Your task to perform on an android device: Open location settings Image 0: 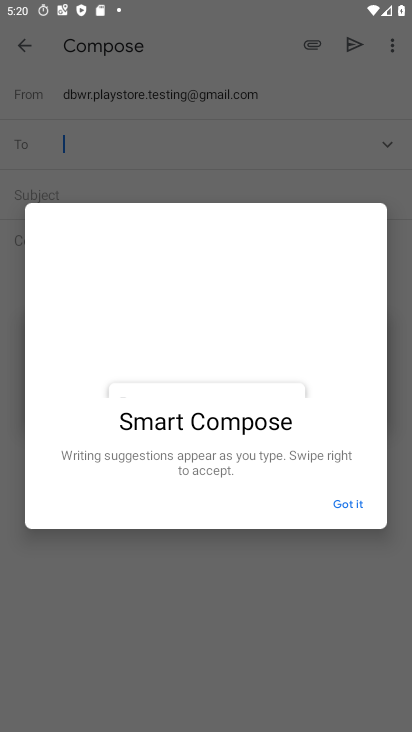
Step 0: click (354, 505)
Your task to perform on an android device: Open location settings Image 1: 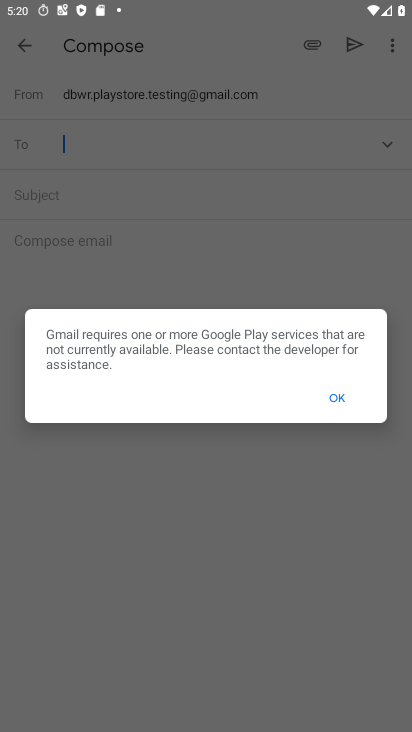
Step 1: click (344, 400)
Your task to perform on an android device: Open location settings Image 2: 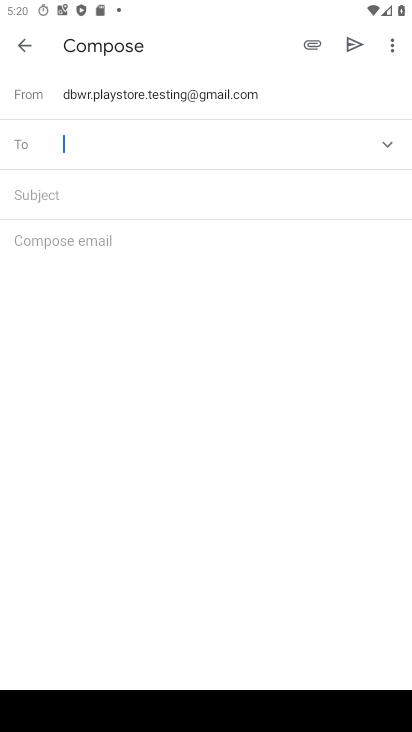
Step 2: press home button
Your task to perform on an android device: Open location settings Image 3: 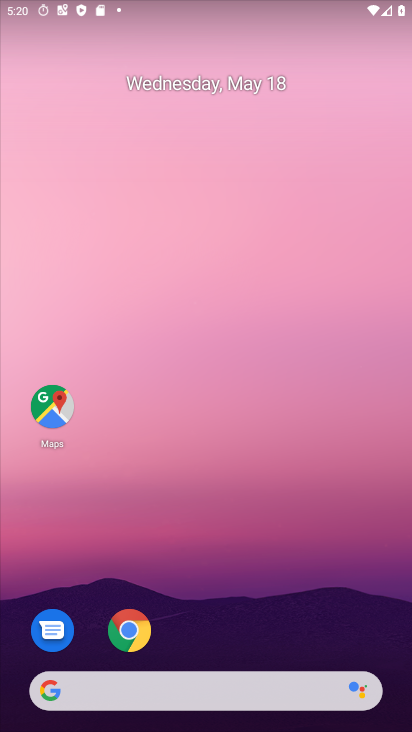
Step 3: drag from (155, 663) to (165, 258)
Your task to perform on an android device: Open location settings Image 4: 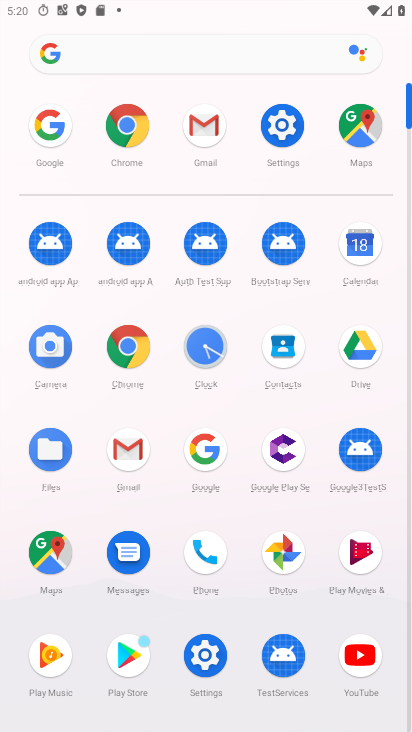
Step 4: click (286, 125)
Your task to perform on an android device: Open location settings Image 5: 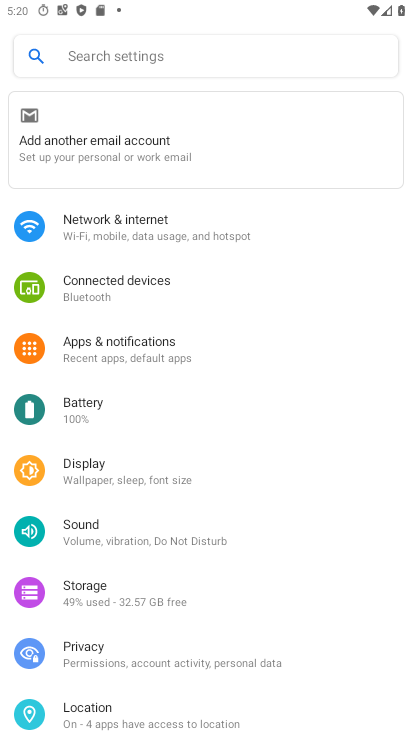
Step 5: click (113, 702)
Your task to perform on an android device: Open location settings Image 6: 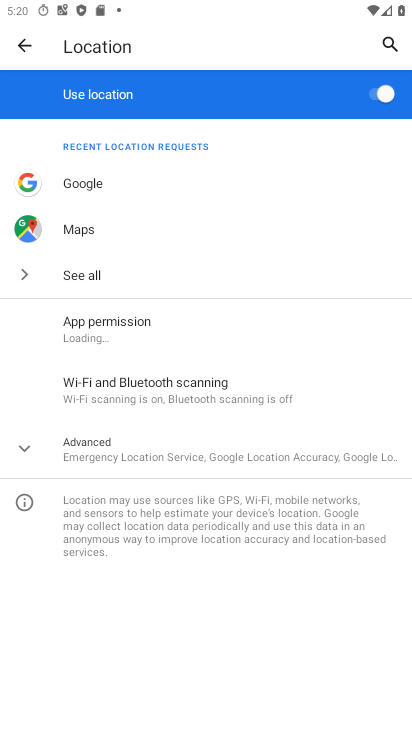
Step 6: click (91, 459)
Your task to perform on an android device: Open location settings Image 7: 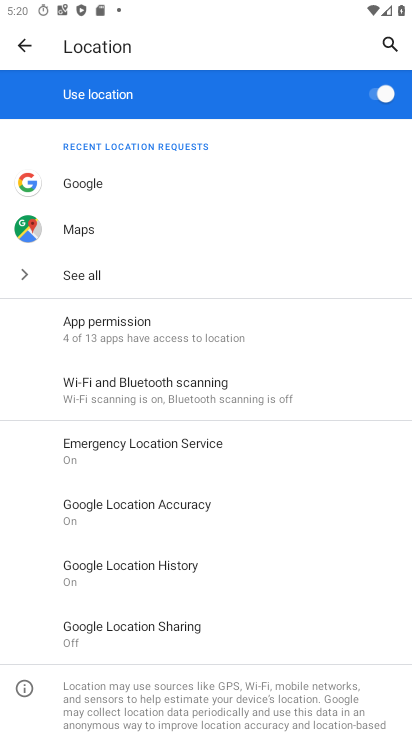
Step 7: task complete